Your task to perform on an android device: turn on notifications settings in the gmail app Image 0: 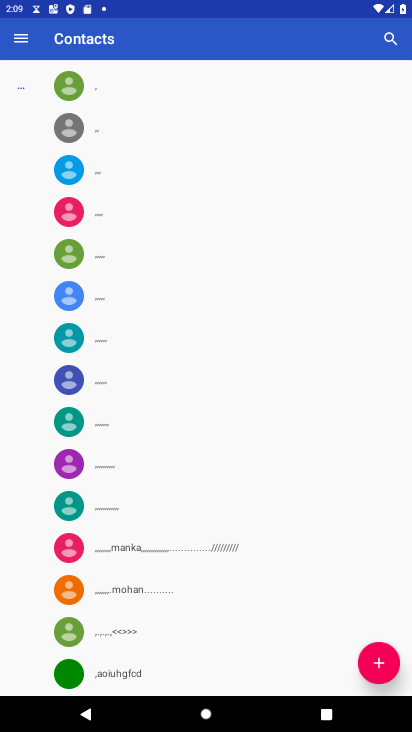
Step 0: press home button
Your task to perform on an android device: turn on notifications settings in the gmail app Image 1: 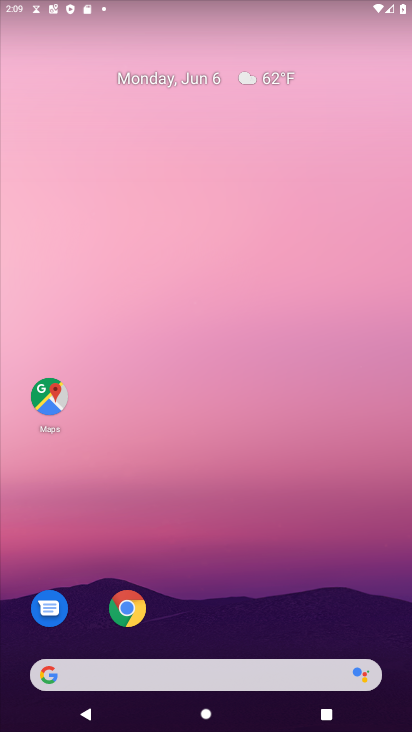
Step 1: drag from (310, 595) to (328, 74)
Your task to perform on an android device: turn on notifications settings in the gmail app Image 2: 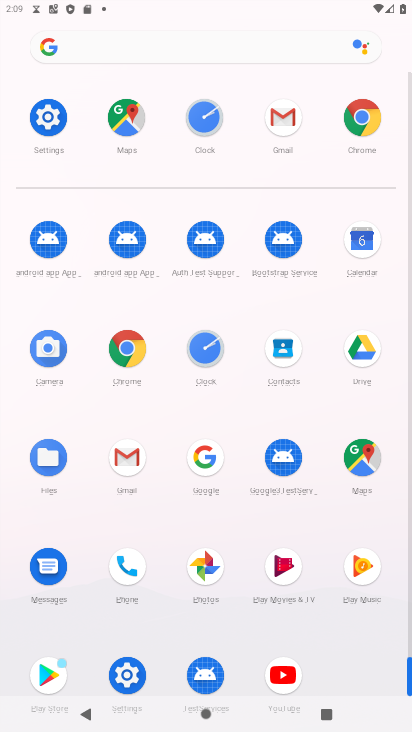
Step 2: click (277, 74)
Your task to perform on an android device: turn on notifications settings in the gmail app Image 3: 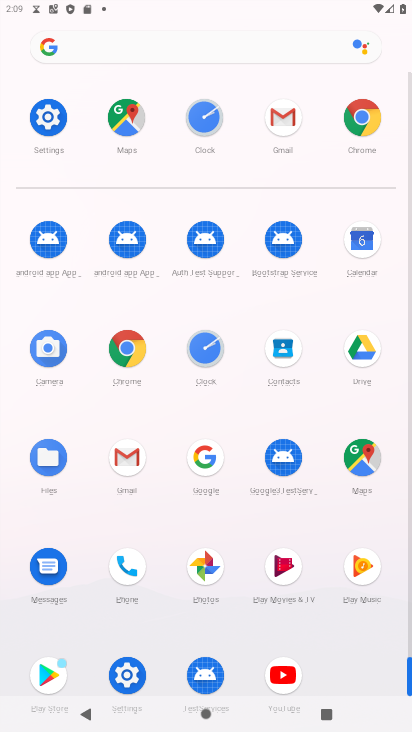
Step 3: click (271, 97)
Your task to perform on an android device: turn on notifications settings in the gmail app Image 4: 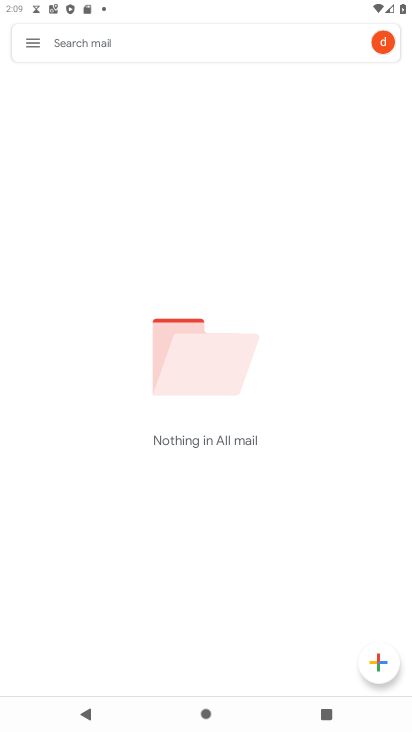
Step 4: click (46, 30)
Your task to perform on an android device: turn on notifications settings in the gmail app Image 5: 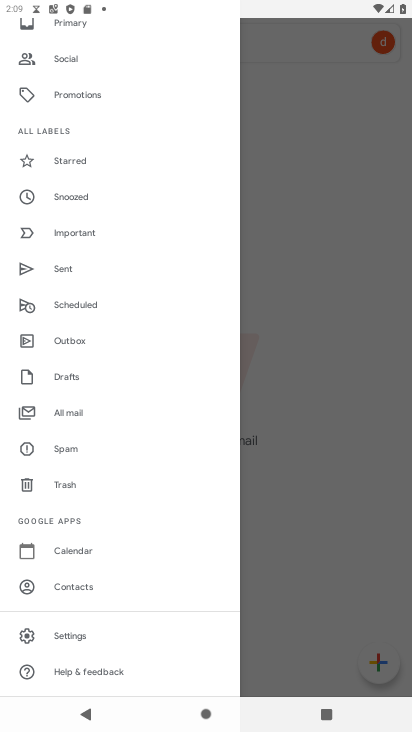
Step 5: click (92, 643)
Your task to perform on an android device: turn on notifications settings in the gmail app Image 6: 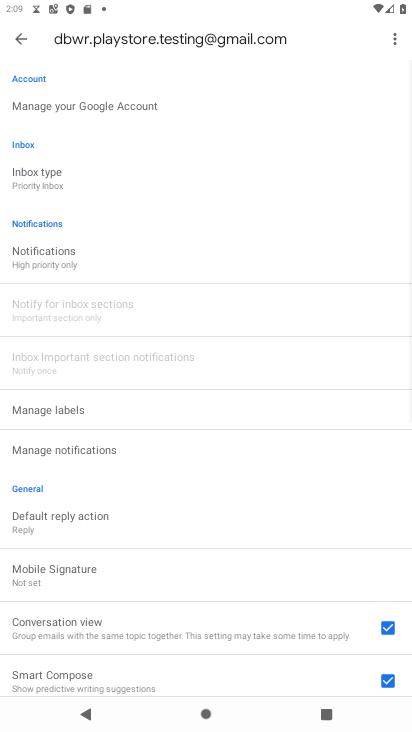
Step 6: click (29, 264)
Your task to perform on an android device: turn on notifications settings in the gmail app Image 7: 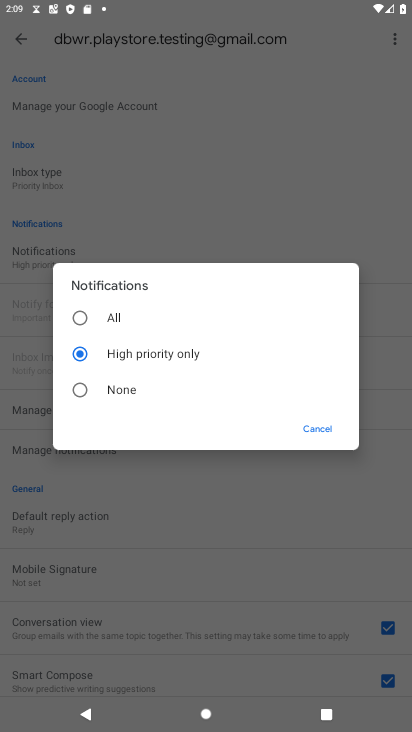
Step 7: click (80, 313)
Your task to perform on an android device: turn on notifications settings in the gmail app Image 8: 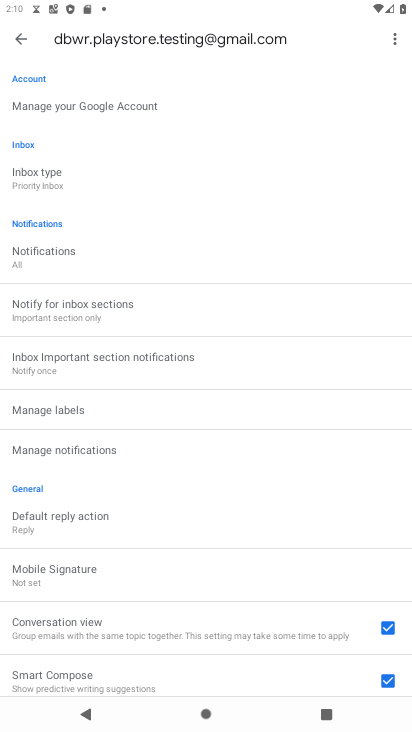
Step 8: task complete